Your task to perform on an android device: change the clock style Image 0: 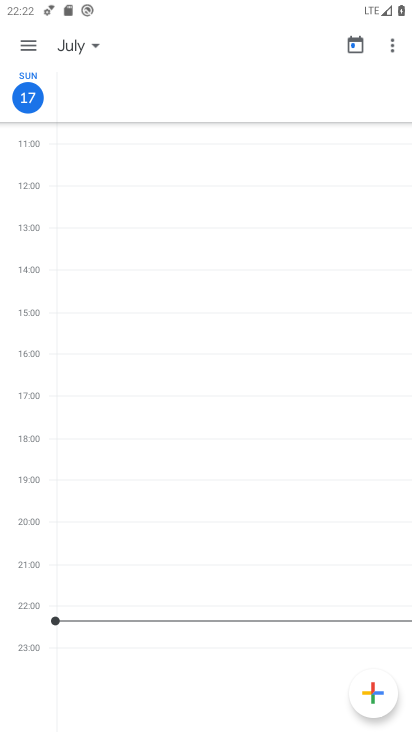
Step 0: press home button
Your task to perform on an android device: change the clock style Image 1: 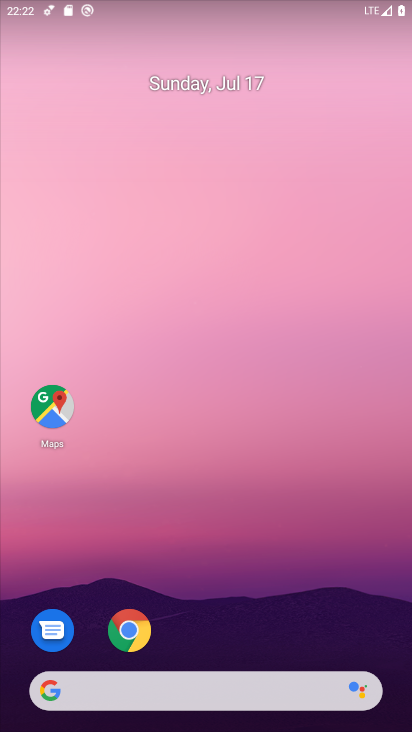
Step 1: drag from (218, 636) to (248, 104)
Your task to perform on an android device: change the clock style Image 2: 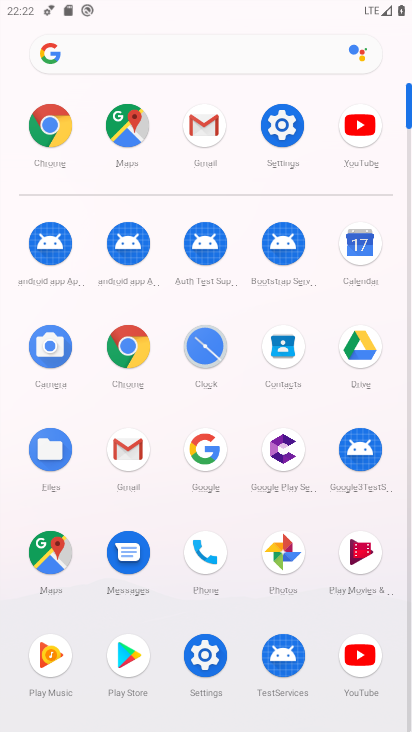
Step 2: click (210, 358)
Your task to perform on an android device: change the clock style Image 3: 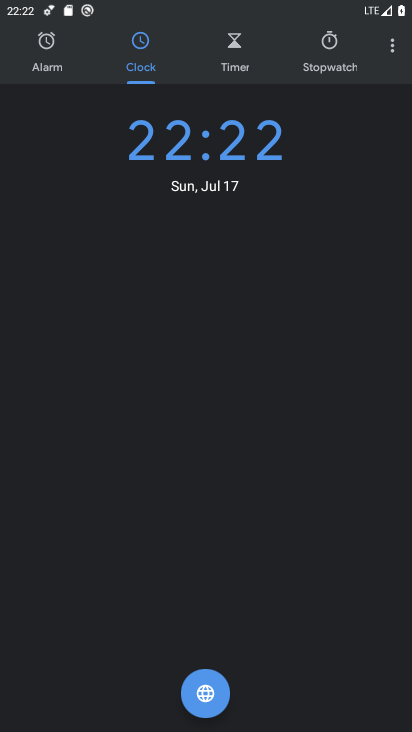
Step 3: click (396, 52)
Your task to perform on an android device: change the clock style Image 4: 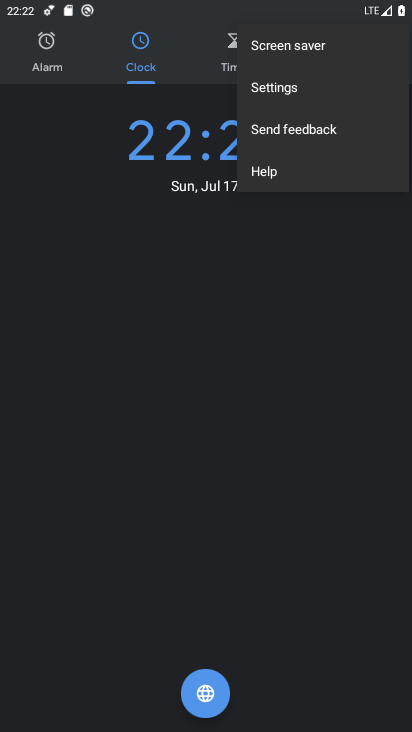
Step 4: click (283, 88)
Your task to perform on an android device: change the clock style Image 5: 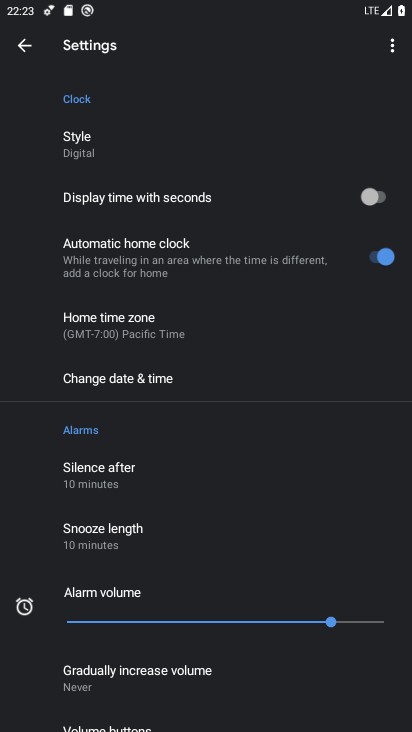
Step 5: click (98, 154)
Your task to perform on an android device: change the clock style Image 6: 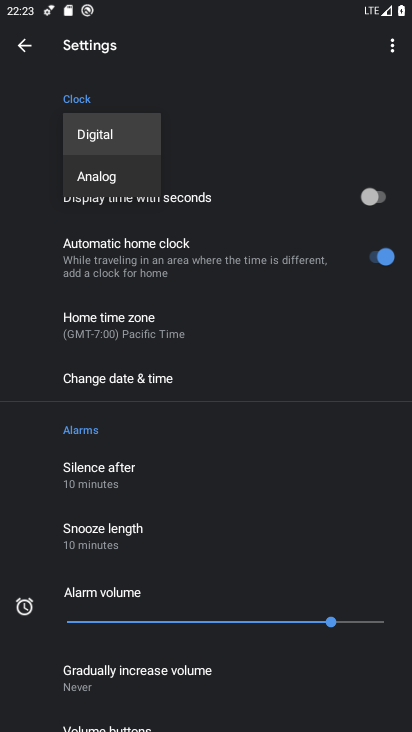
Step 6: click (98, 179)
Your task to perform on an android device: change the clock style Image 7: 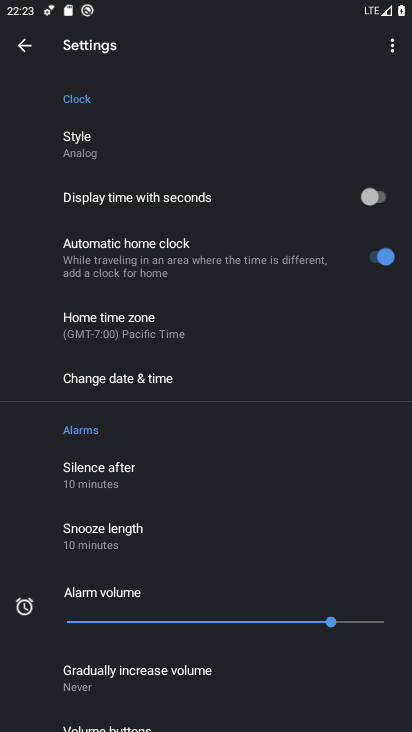
Step 7: task complete